Your task to perform on an android device: turn off javascript in the chrome app Image 0: 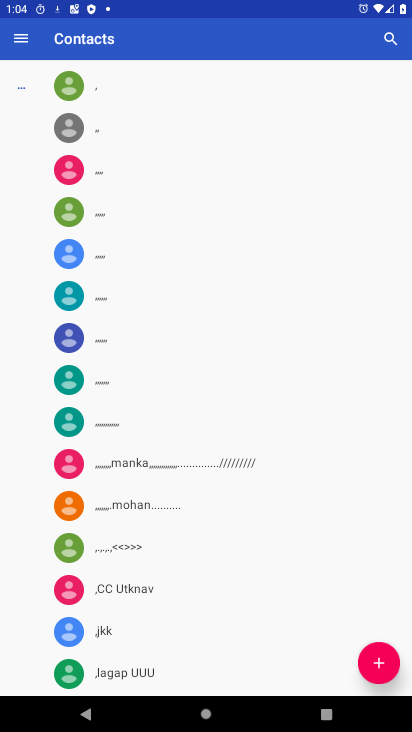
Step 0: press home button
Your task to perform on an android device: turn off javascript in the chrome app Image 1: 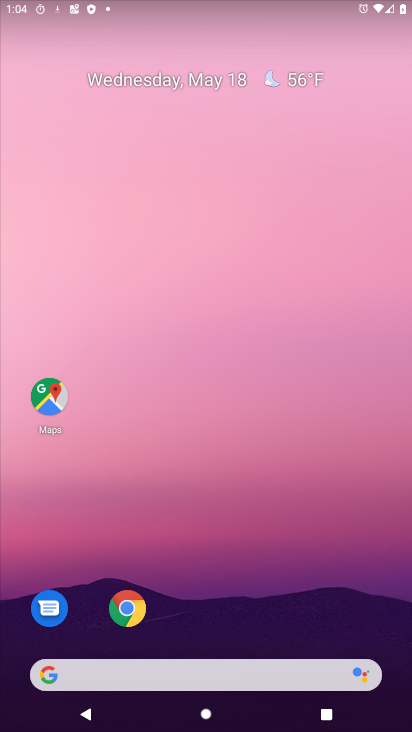
Step 1: drag from (246, 684) to (227, 292)
Your task to perform on an android device: turn off javascript in the chrome app Image 2: 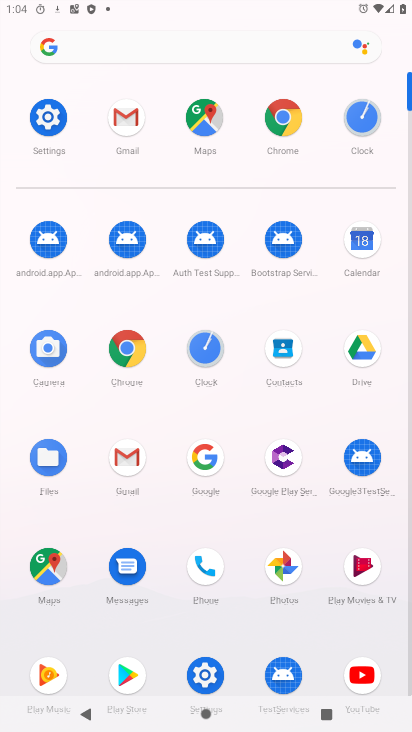
Step 2: click (276, 137)
Your task to perform on an android device: turn off javascript in the chrome app Image 3: 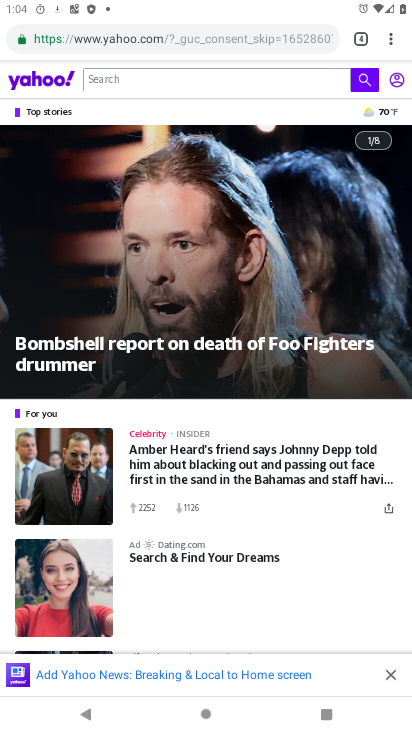
Step 3: click (384, 40)
Your task to perform on an android device: turn off javascript in the chrome app Image 4: 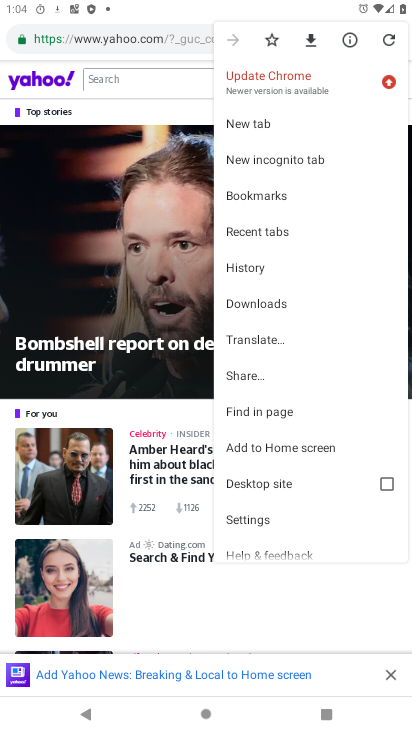
Step 4: click (255, 517)
Your task to perform on an android device: turn off javascript in the chrome app Image 5: 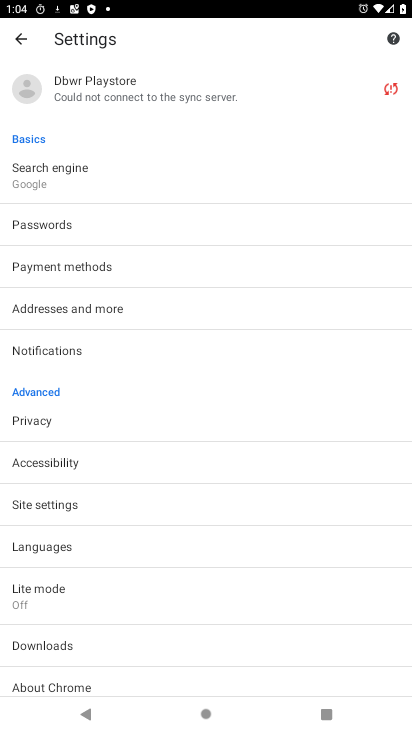
Step 5: click (54, 496)
Your task to perform on an android device: turn off javascript in the chrome app Image 6: 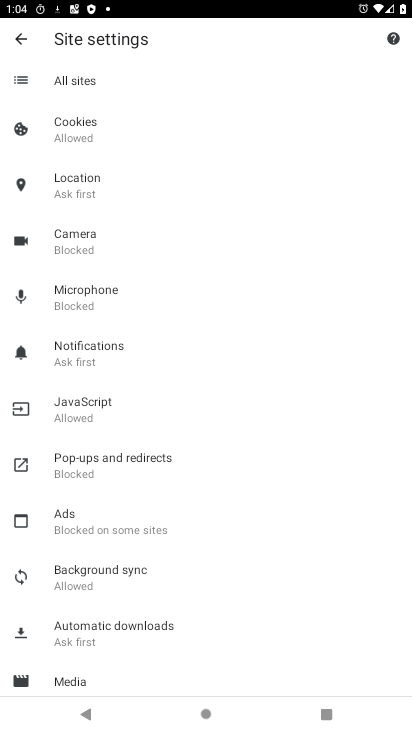
Step 6: click (90, 415)
Your task to perform on an android device: turn off javascript in the chrome app Image 7: 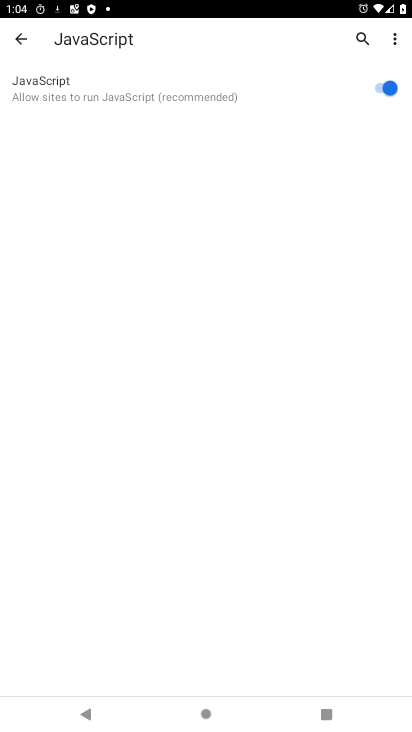
Step 7: click (380, 93)
Your task to perform on an android device: turn off javascript in the chrome app Image 8: 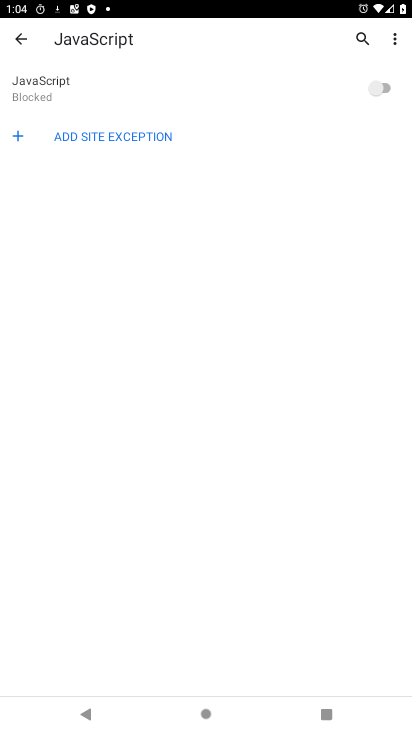
Step 8: task complete